Your task to perform on an android device: change the clock style Image 0: 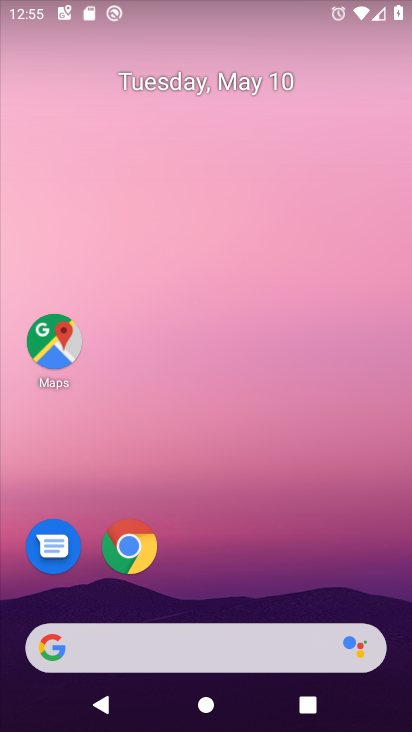
Step 0: press home button
Your task to perform on an android device: change the clock style Image 1: 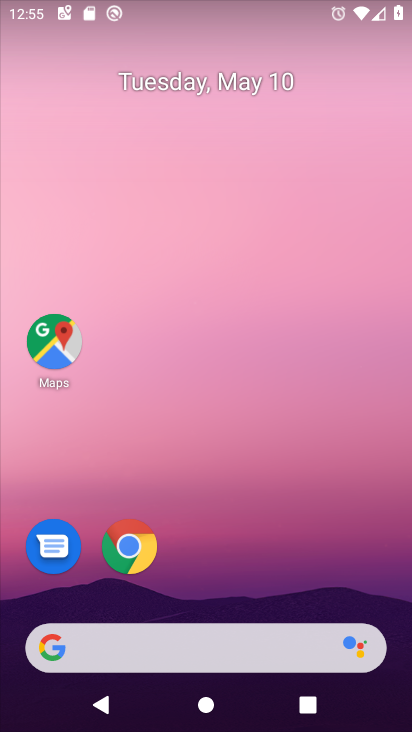
Step 1: drag from (279, 579) to (250, 157)
Your task to perform on an android device: change the clock style Image 2: 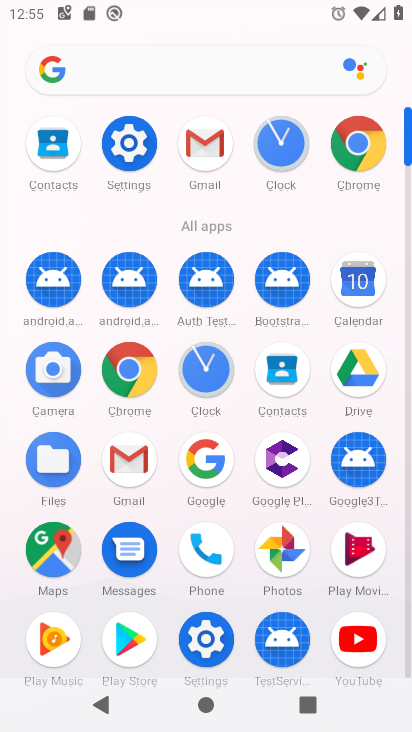
Step 2: click (225, 355)
Your task to perform on an android device: change the clock style Image 3: 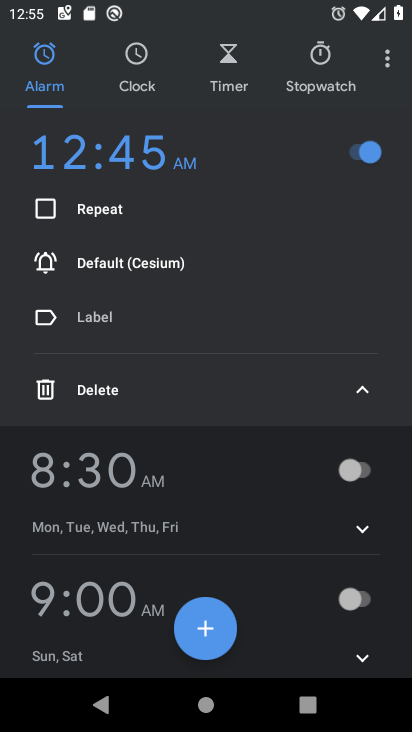
Step 3: click (388, 47)
Your task to perform on an android device: change the clock style Image 4: 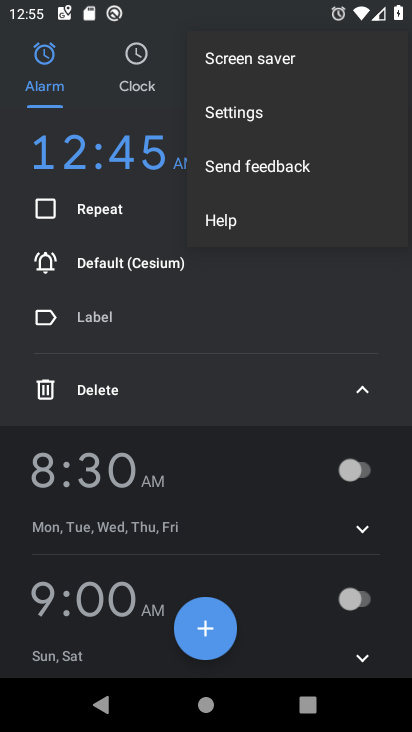
Step 4: click (278, 102)
Your task to perform on an android device: change the clock style Image 5: 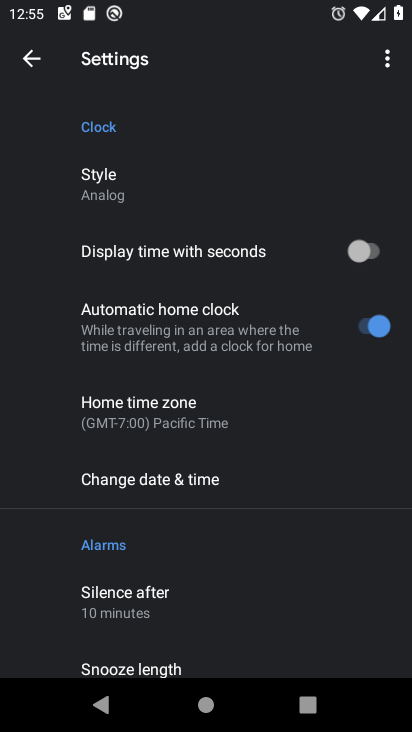
Step 5: click (175, 188)
Your task to perform on an android device: change the clock style Image 6: 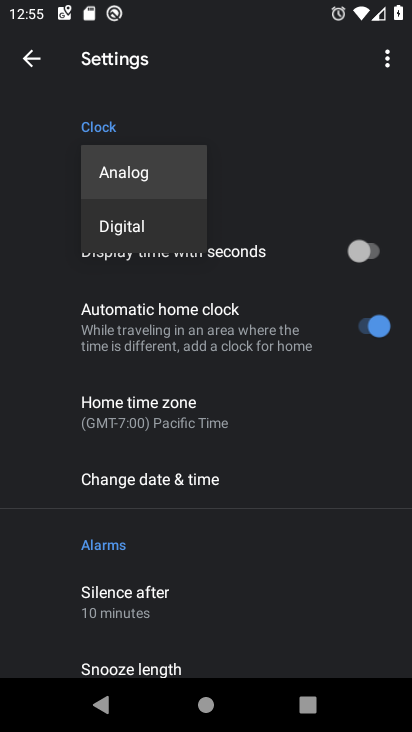
Step 6: click (163, 173)
Your task to perform on an android device: change the clock style Image 7: 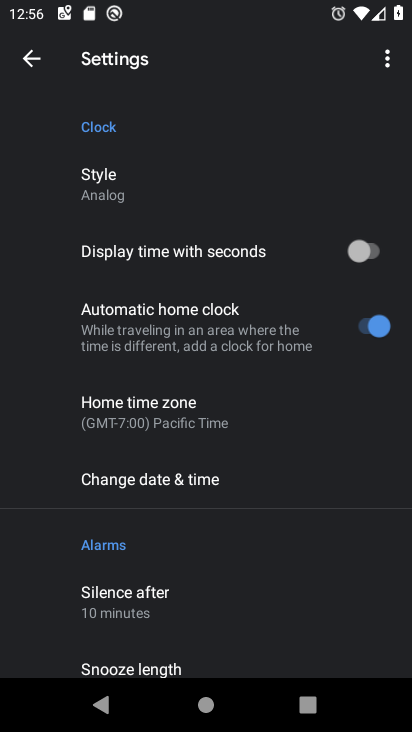
Step 7: click (102, 201)
Your task to perform on an android device: change the clock style Image 8: 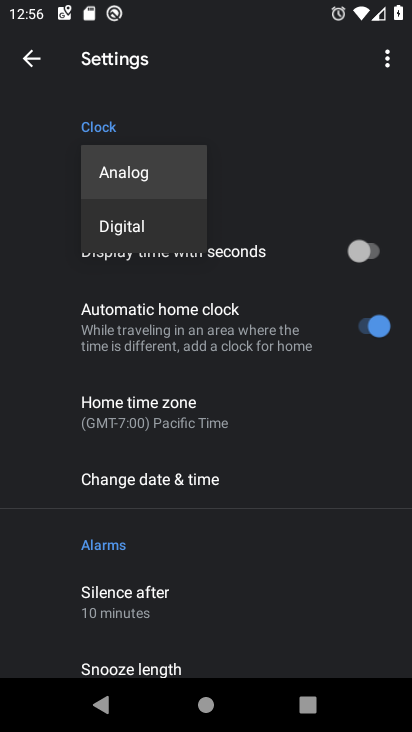
Step 8: click (147, 232)
Your task to perform on an android device: change the clock style Image 9: 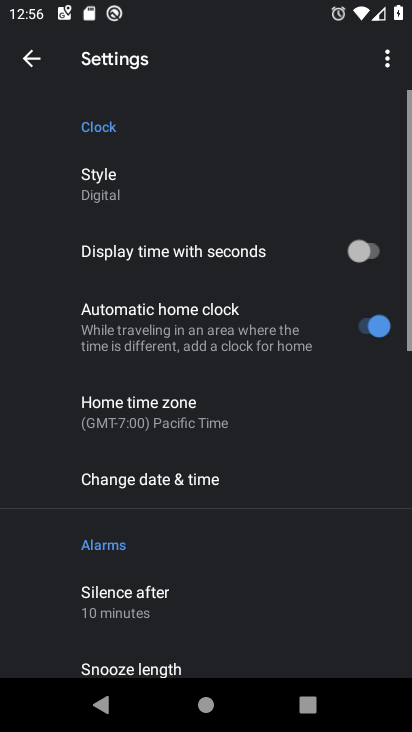
Step 9: task complete